Your task to perform on an android device: empty trash in google photos Image 0: 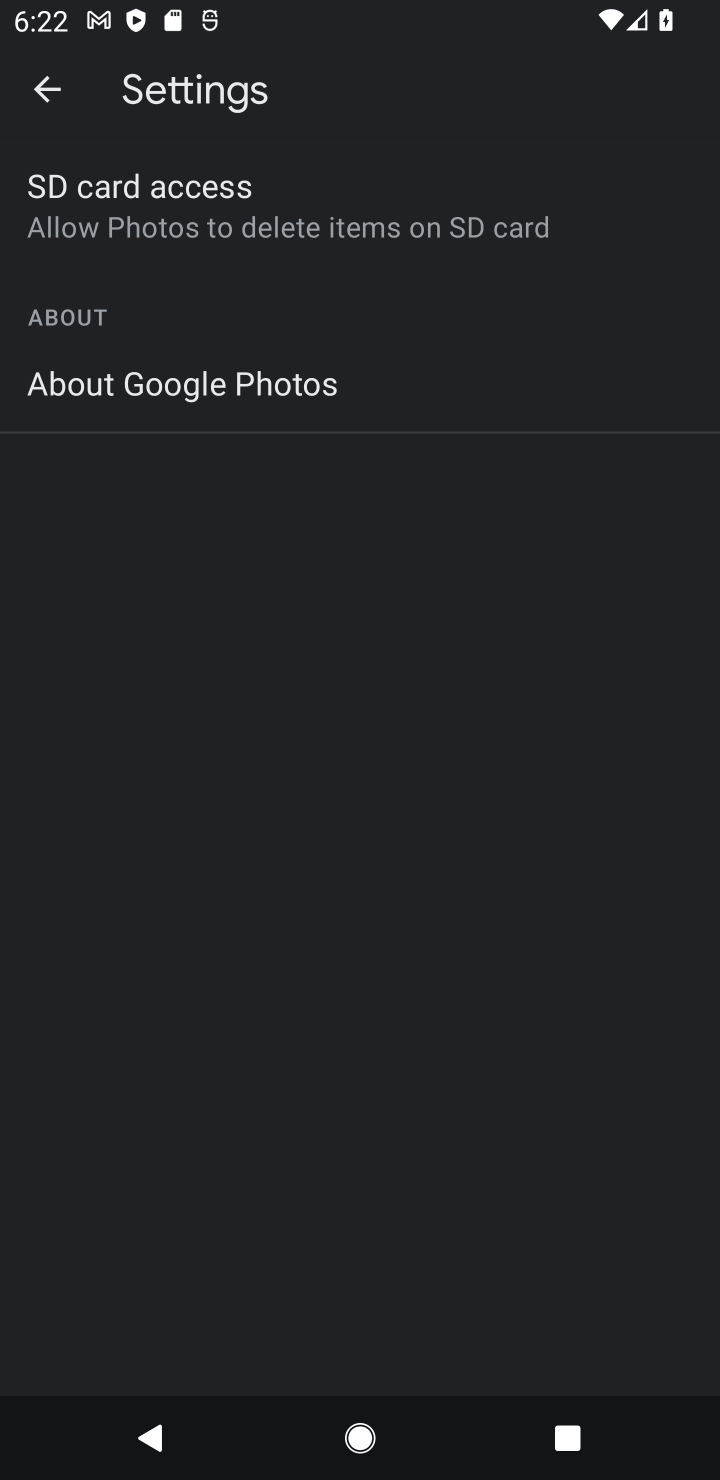
Step 0: click (13, 87)
Your task to perform on an android device: empty trash in google photos Image 1: 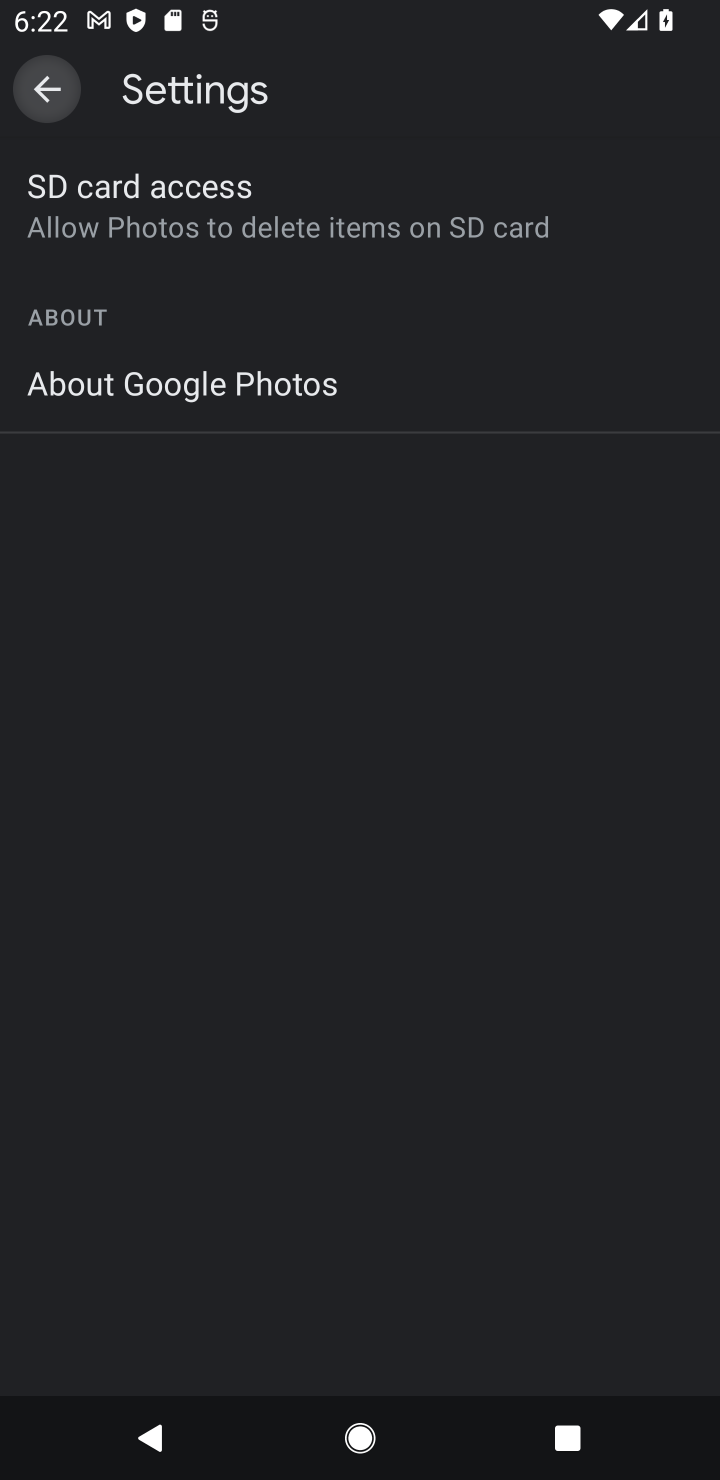
Step 1: click (45, 93)
Your task to perform on an android device: empty trash in google photos Image 2: 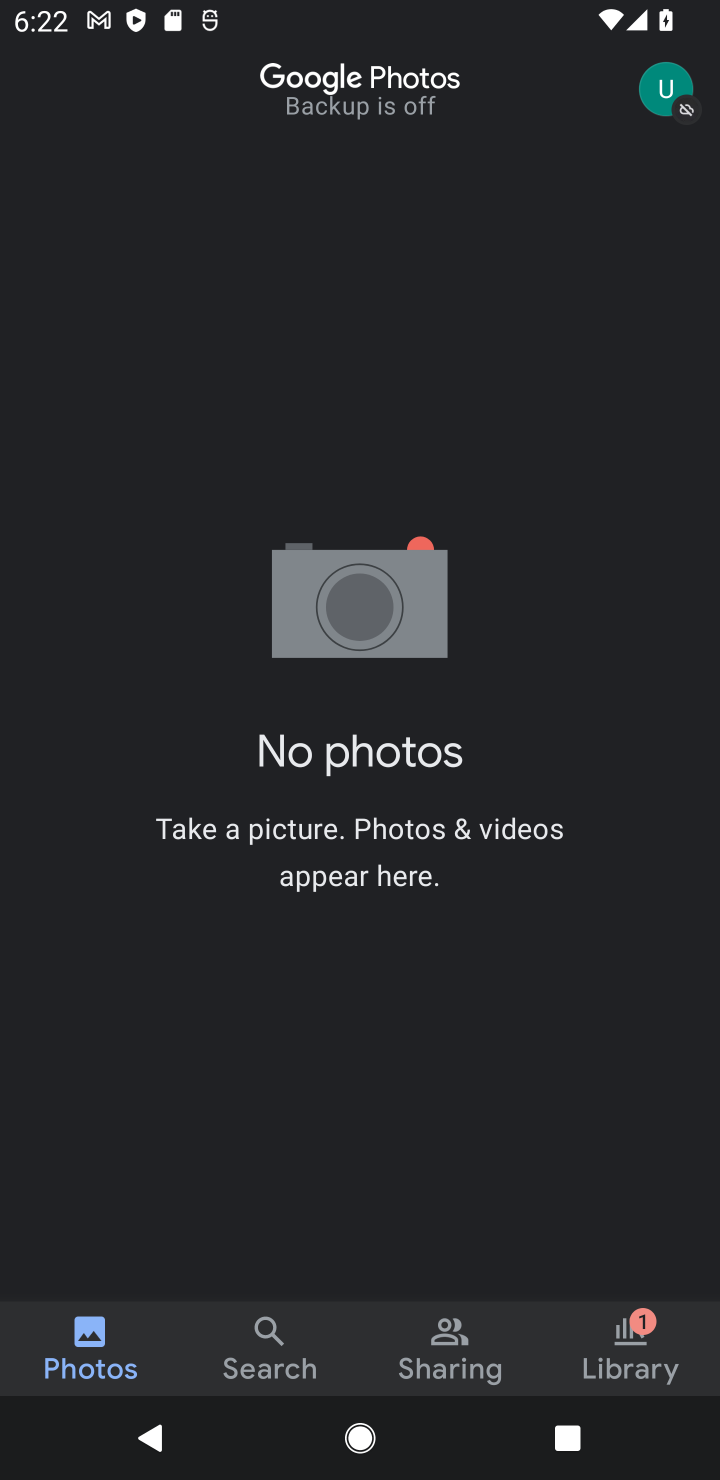
Step 2: press home button
Your task to perform on an android device: empty trash in google photos Image 3: 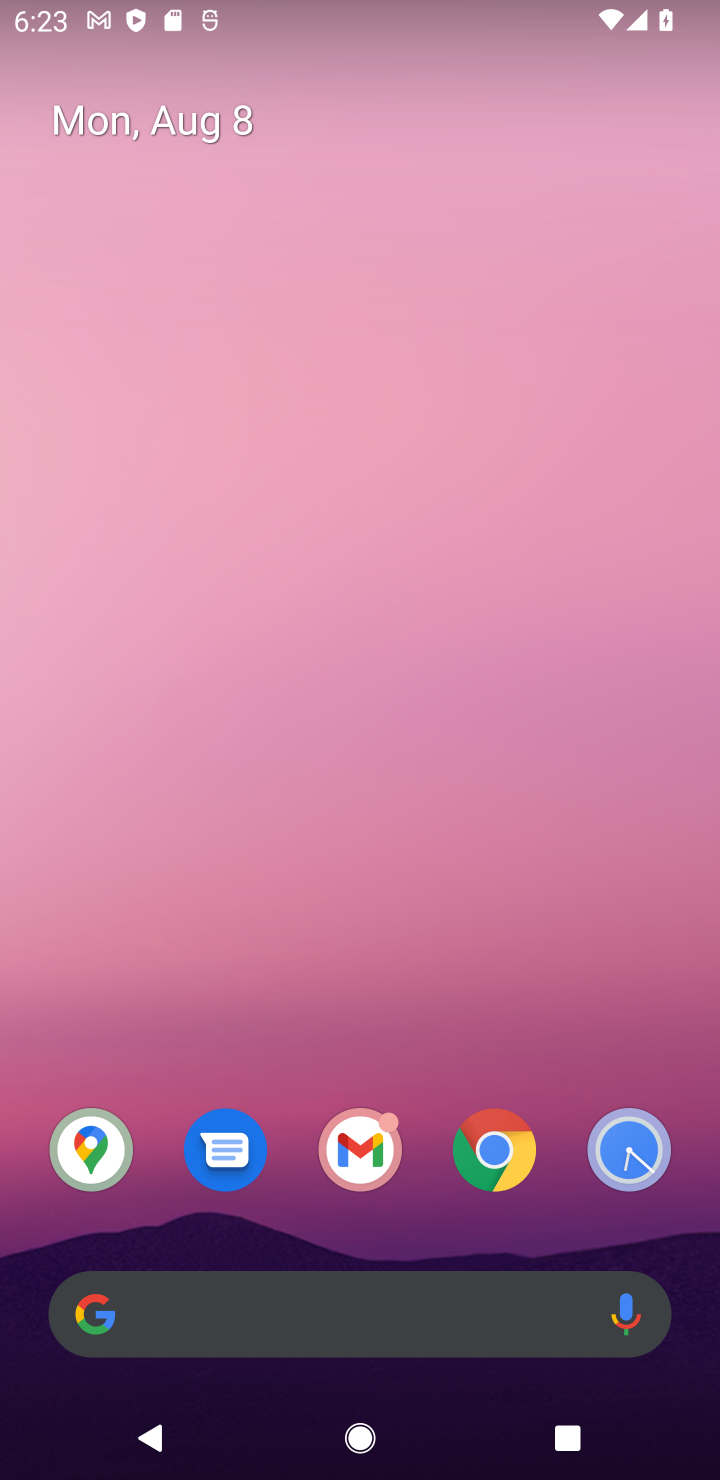
Step 3: drag from (296, 1234) to (199, 178)
Your task to perform on an android device: empty trash in google photos Image 4: 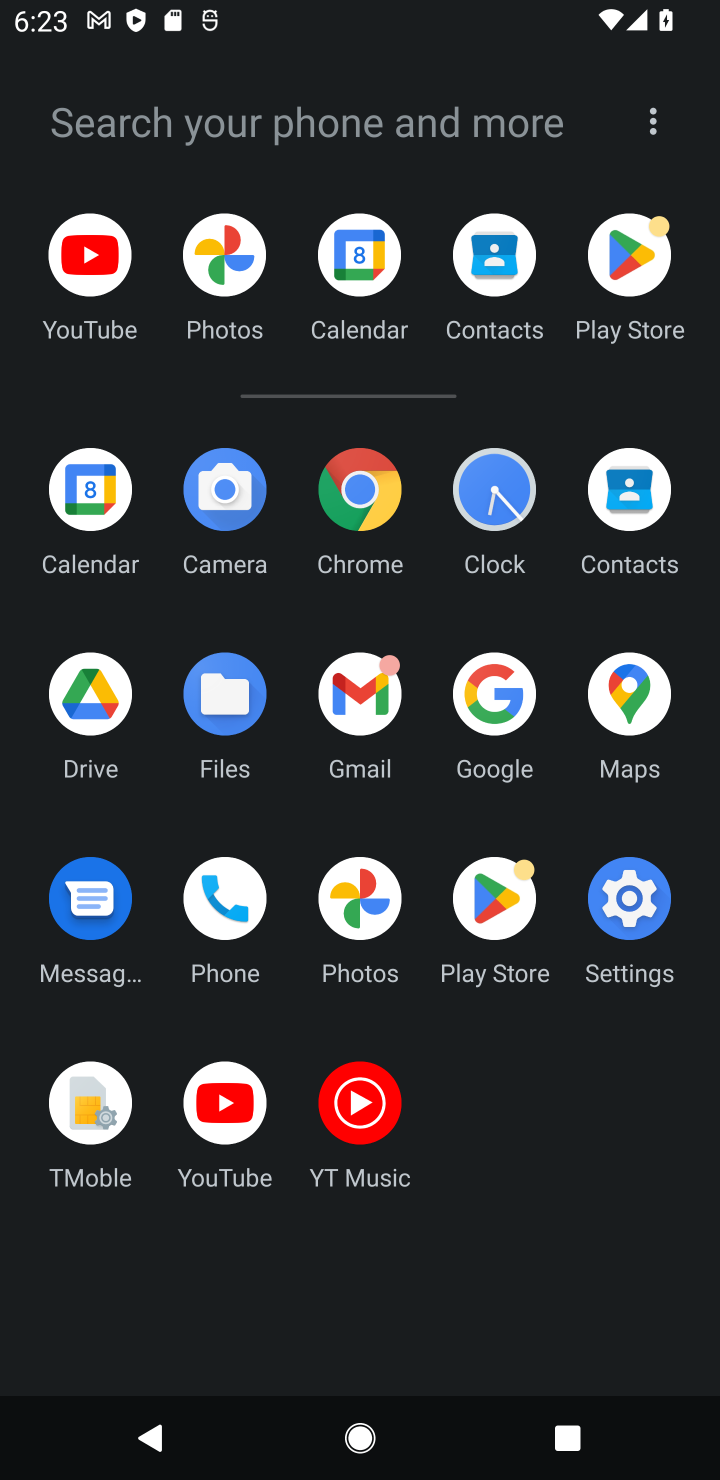
Step 4: click (380, 907)
Your task to perform on an android device: empty trash in google photos Image 5: 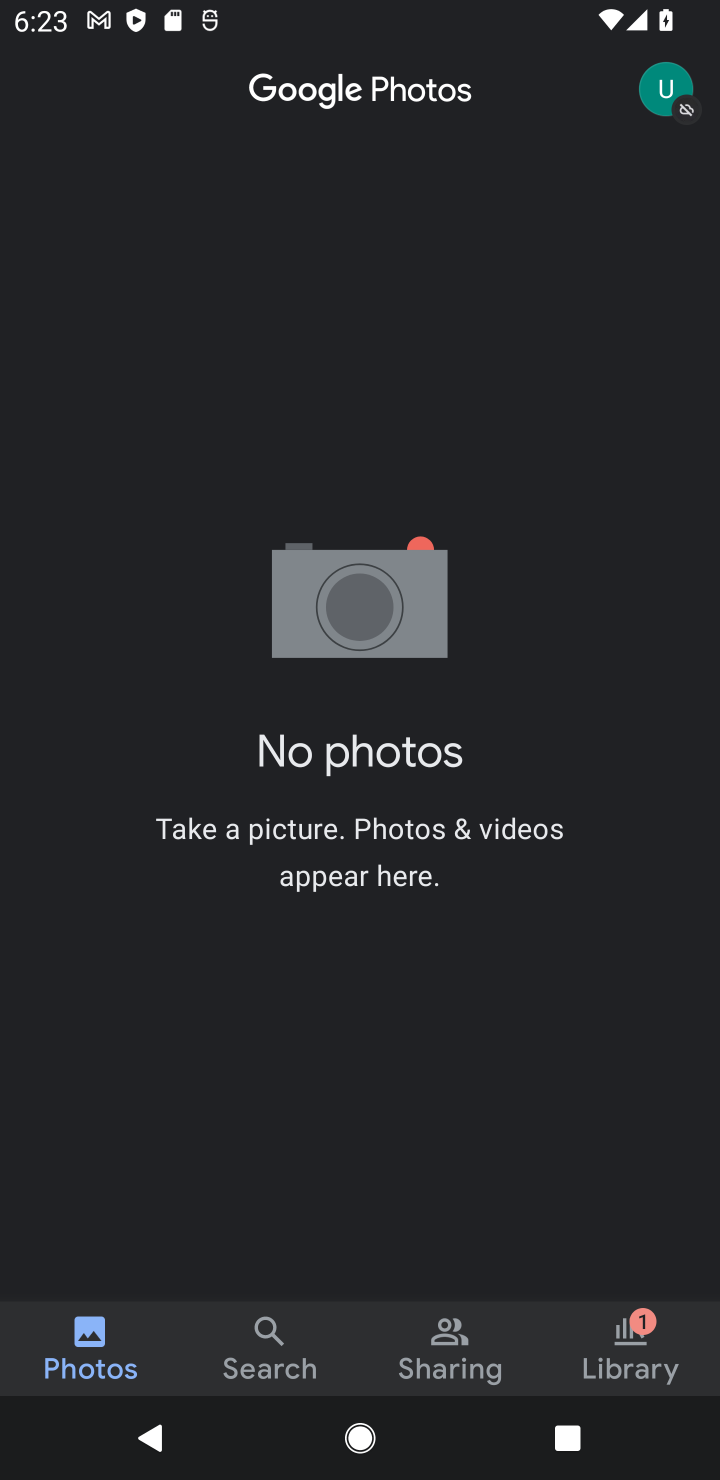
Step 5: task complete